Your task to perform on an android device: Go to Reddit.com Image 0: 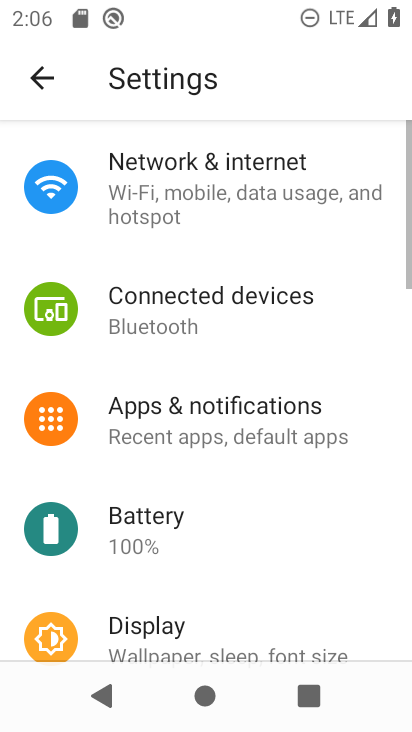
Step 0: press home button
Your task to perform on an android device: Go to Reddit.com Image 1: 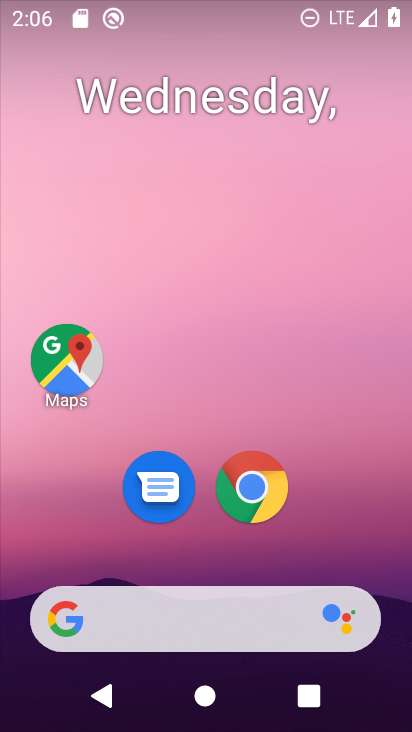
Step 1: drag from (384, 565) to (313, 102)
Your task to perform on an android device: Go to Reddit.com Image 2: 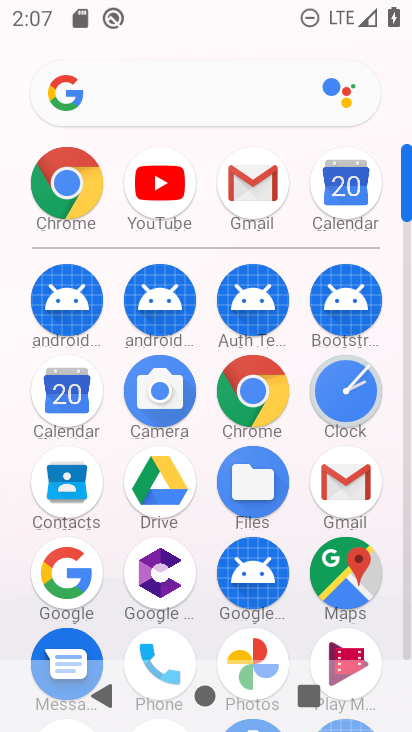
Step 2: click (55, 193)
Your task to perform on an android device: Go to Reddit.com Image 3: 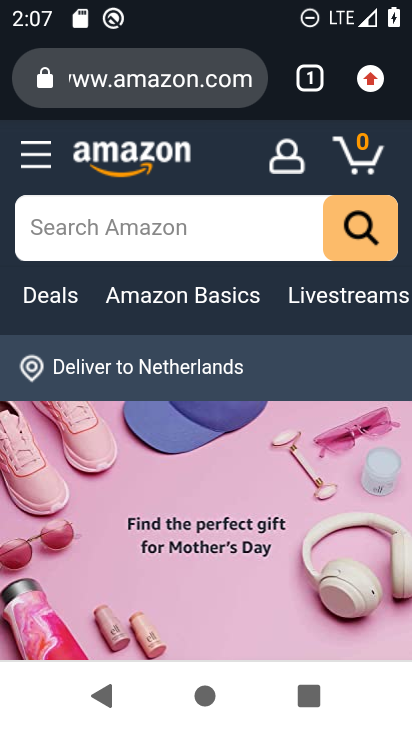
Step 3: press back button
Your task to perform on an android device: Go to Reddit.com Image 4: 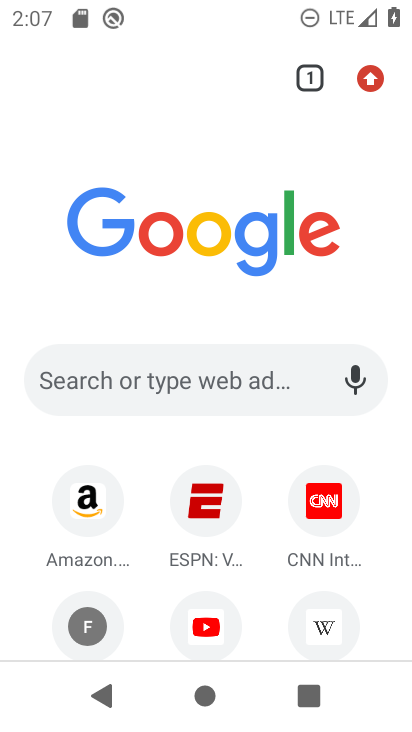
Step 4: click (157, 371)
Your task to perform on an android device: Go to Reddit.com Image 5: 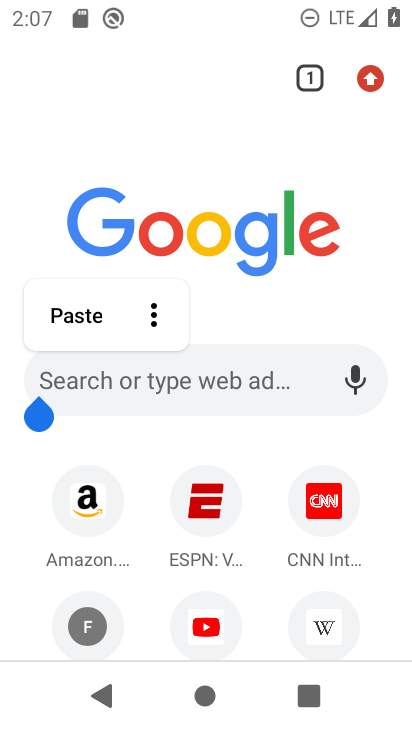
Step 5: click (163, 386)
Your task to perform on an android device: Go to Reddit.com Image 6: 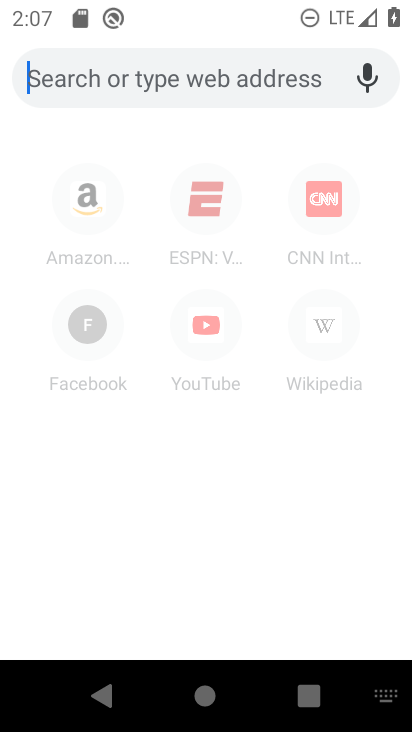
Step 6: type "reddit.com"
Your task to perform on an android device: Go to Reddit.com Image 7: 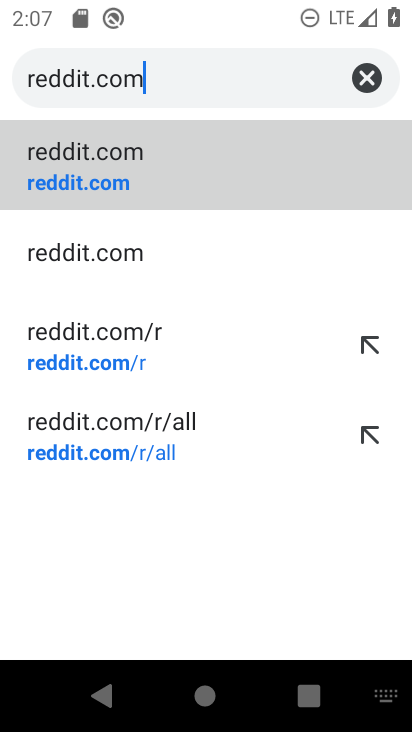
Step 7: click (184, 175)
Your task to perform on an android device: Go to Reddit.com Image 8: 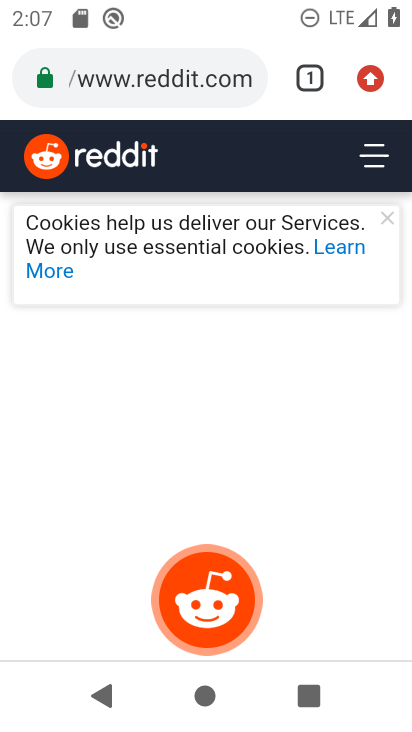
Step 8: task complete